Your task to perform on an android device: allow notifications from all sites in the chrome app Image 0: 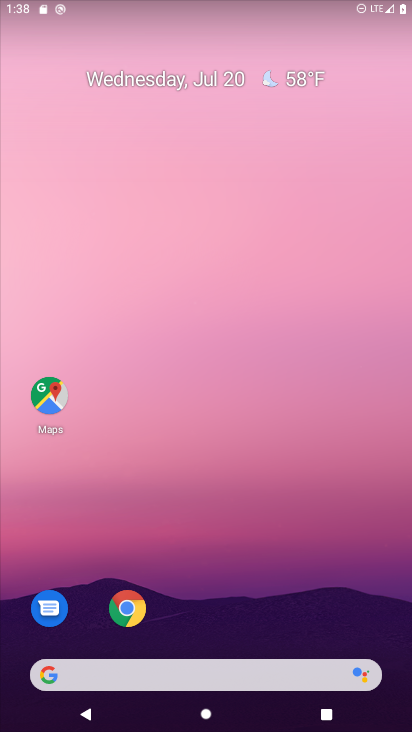
Step 0: drag from (237, 727) to (216, 55)
Your task to perform on an android device: allow notifications from all sites in the chrome app Image 1: 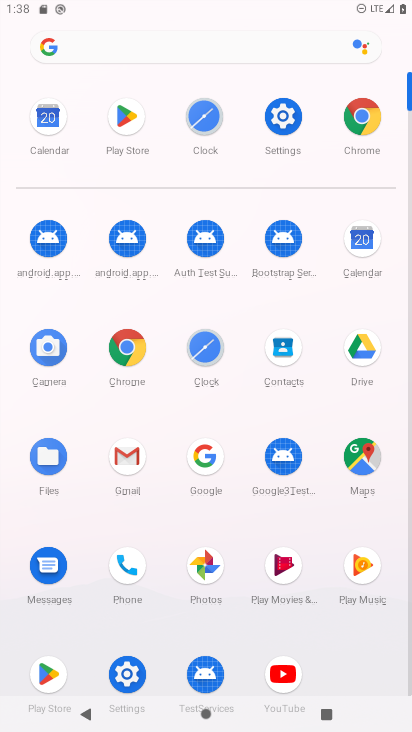
Step 1: click (130, 350)
Your task to perform on an android device: allow notifications from all sites in the chrome app Image 2: 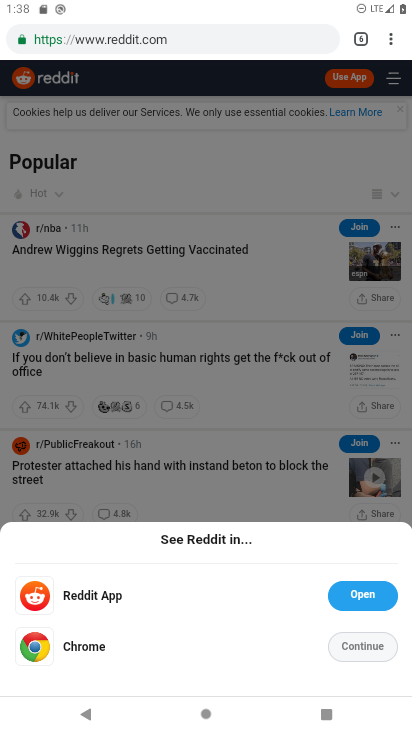
Step 2: click (391, 41)
Your task to perform on an android device: allow notifications from all sites in the chrome app Image 3: 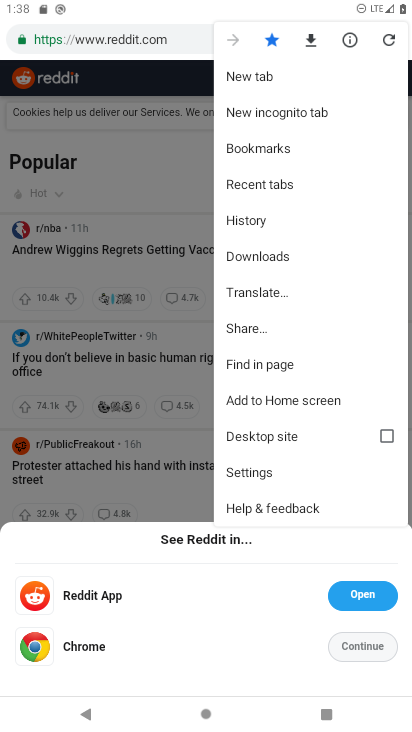
Step 3: click (248, 470)
Your task to perform on an android device: allow notifications from all sites in the chrome app Image 4: 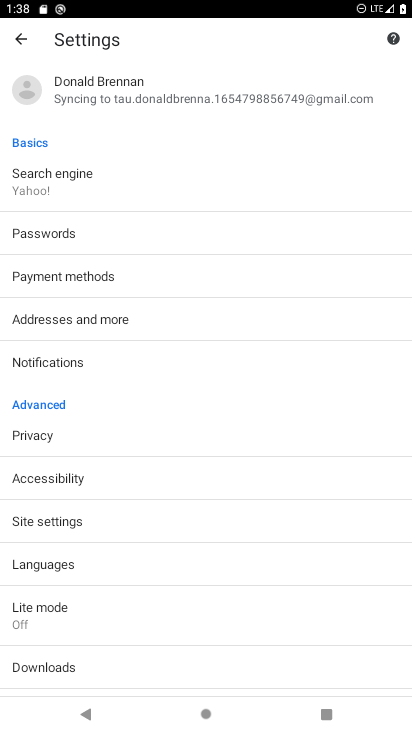
Step 4: click (43, 518)
Your task to perform on an android device: allow notifications from all sites in the chrome app Image 5: 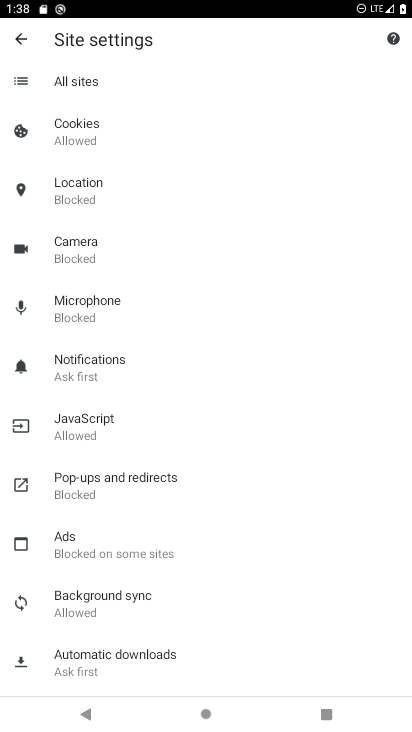
Step 5: click (81, 369)
Your task to perform on an android device: allow notifications from all sites in the chrome app Image 6: 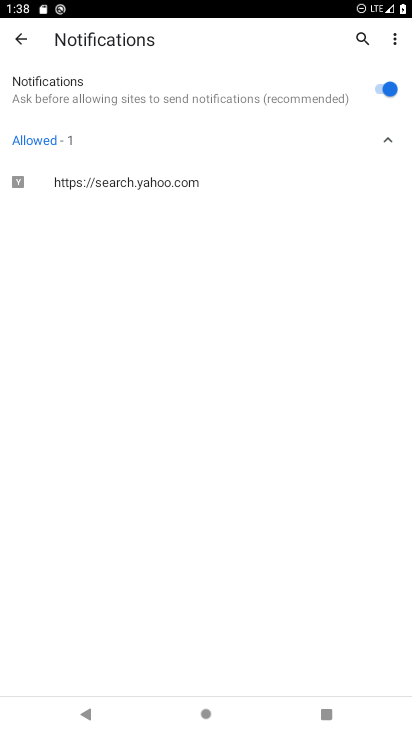
Step 6: task complete